Your task to perform on an android device: Open Android settings Image 0: 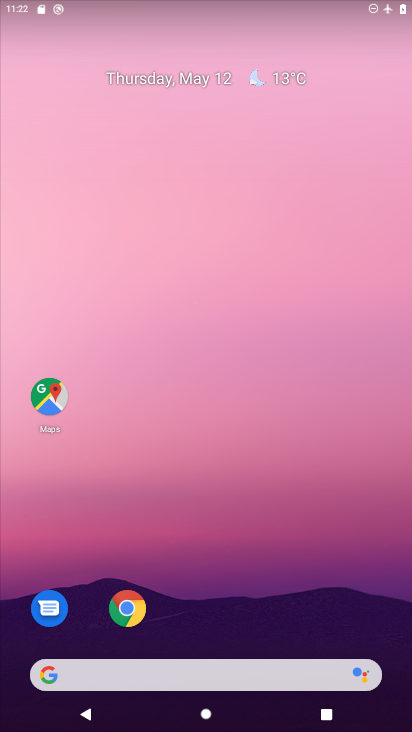
Step 0: drag from (248, 569) to (254, 114)
Your task to perform on an android device: Open Android settings Image 1: 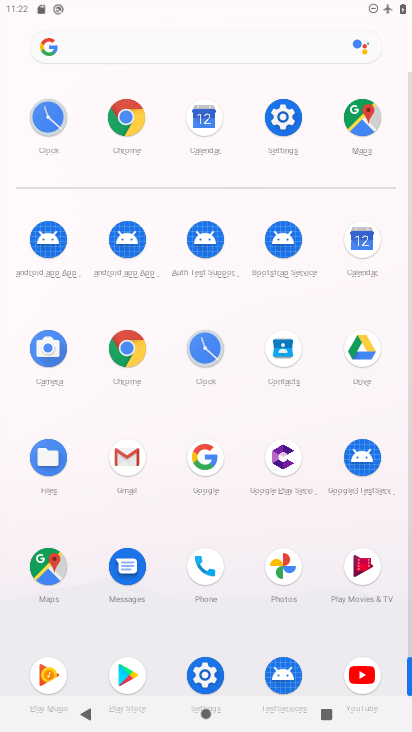
Step 1: click (207, 676)
Your task to perform on an android device: Open Android settings Image 2: 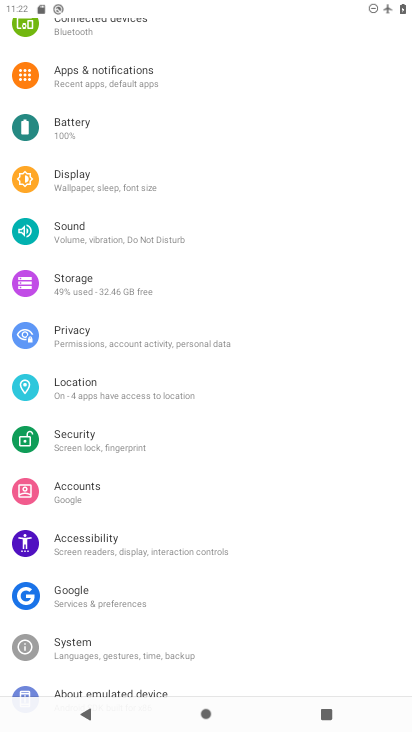
Step 2: task complete